Your task to perform on an android device: turn on location history Image 0: 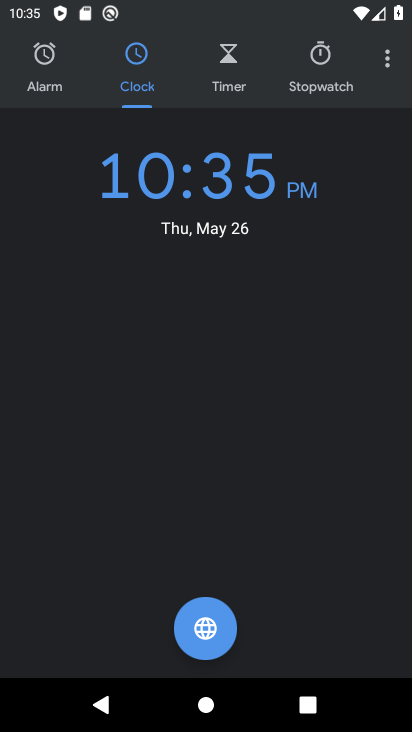
Step 0: press home button
Your task to perform on an android device: turn on location history Image 1: 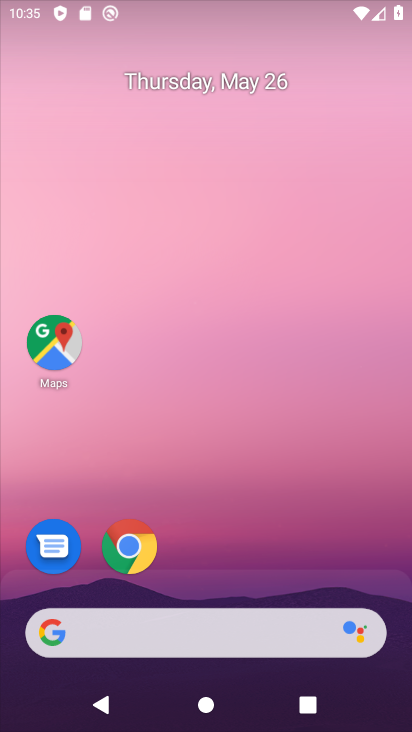
Step 1: drag from (261, 555) to (205, 107)
Your task to perform on an android device: turn on location history Image 2: 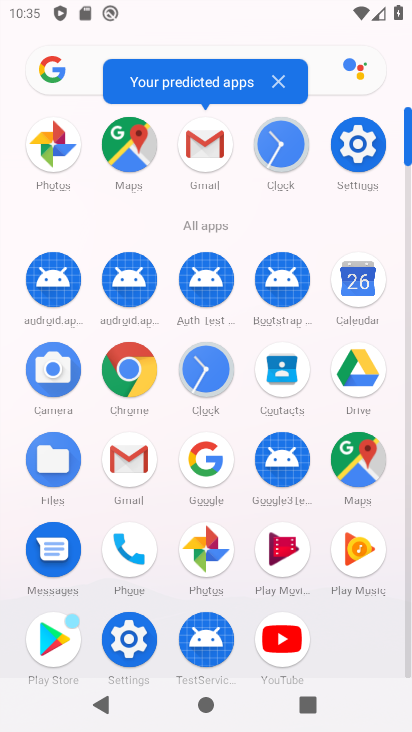
Step 2: drag from (243, 213) to (243, 54)
Your task to perform on an android device: turn on location history Image 3: 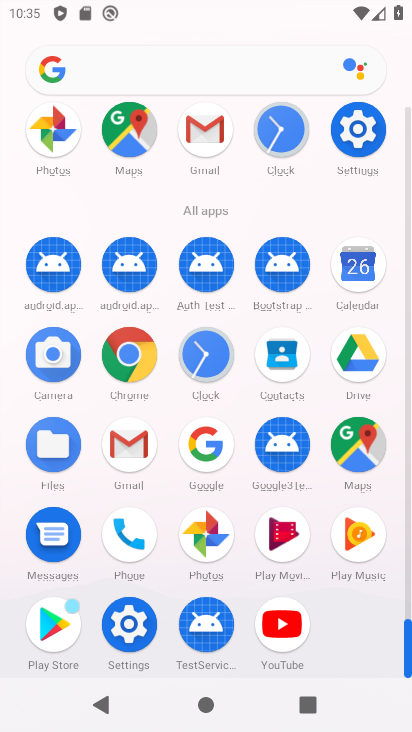
Step 3: click (130, 626)
Your task to perform on an android device: turn on location history Image 4: 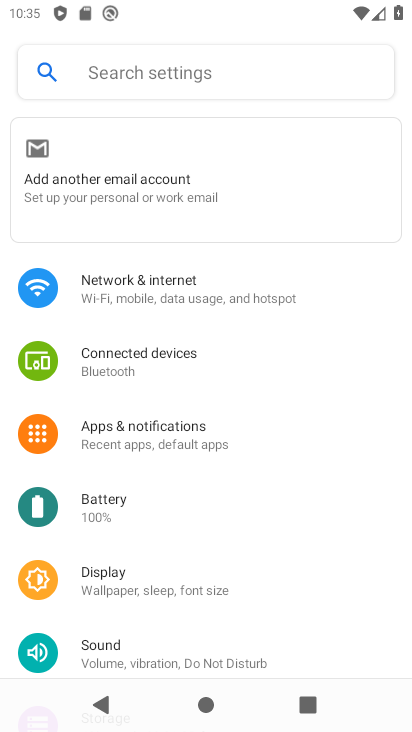
Step 4: drag from (162, 558) to (214, 311)
Your task to perform on an android device: turn on location history Image 5: 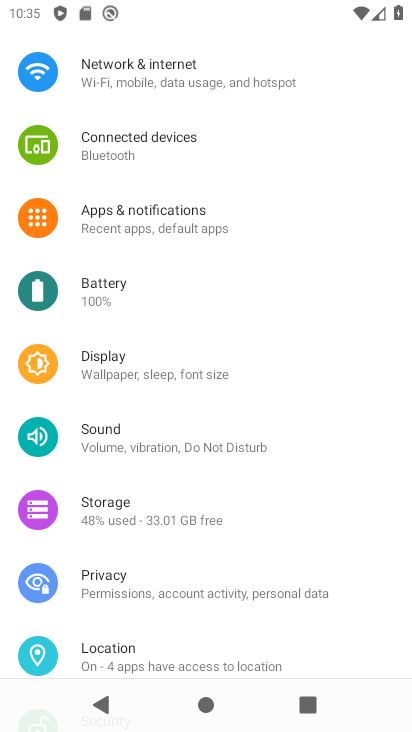
Step 5: click (169, 659)
Your task to perform on an android device: turn on location history Image 6: 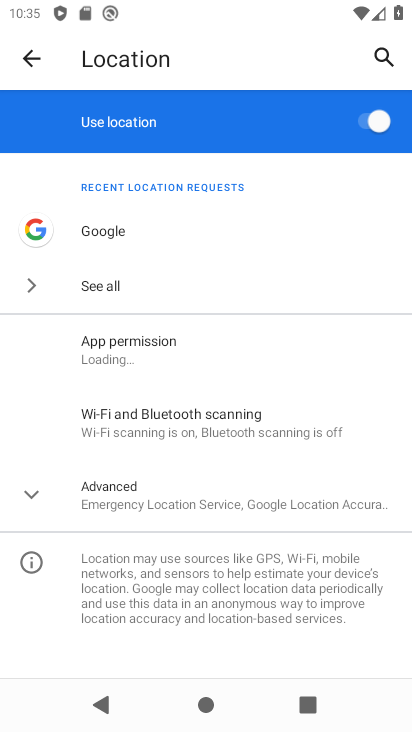
Step 6: click (179, 492)
Your task to perform on an android device: turn on location history Image 7: 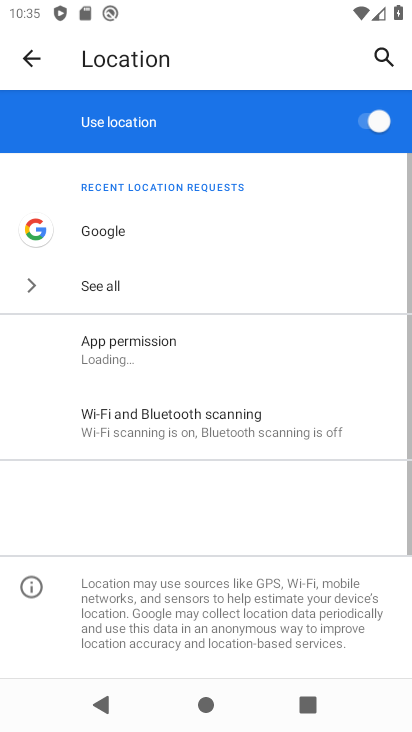
Step 7: drag from (179, 492) to (237, 202)
Your task to perform on an android device: turn on location history Image 8: 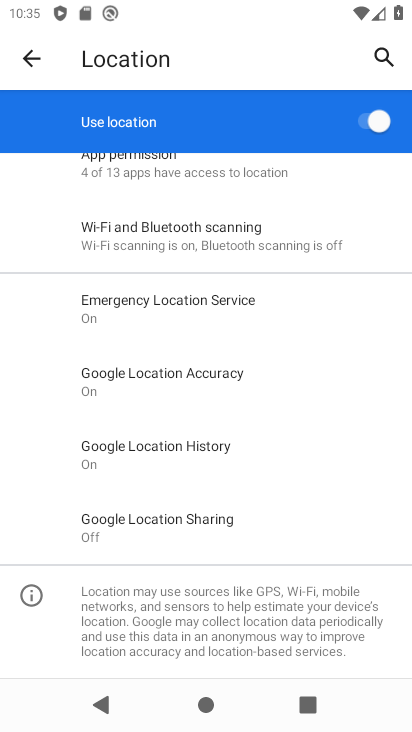
Step 8: click (217, 458)
Your task to perform on an android device: turn on location history Image 9: 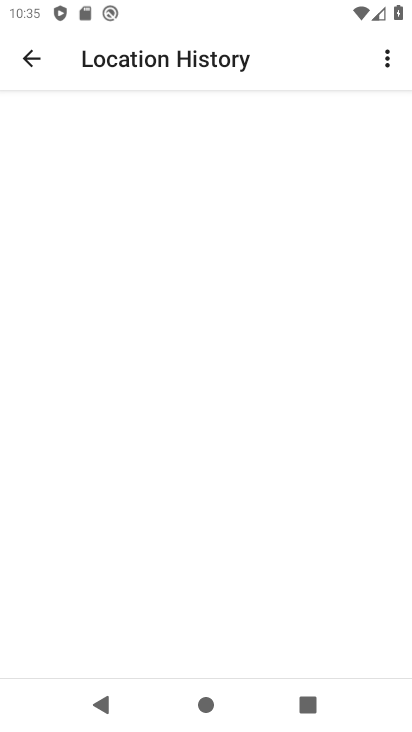
Step 9: task complete